Your task to perform on an android device: turn on priority inbox in the gmail app Image 0: 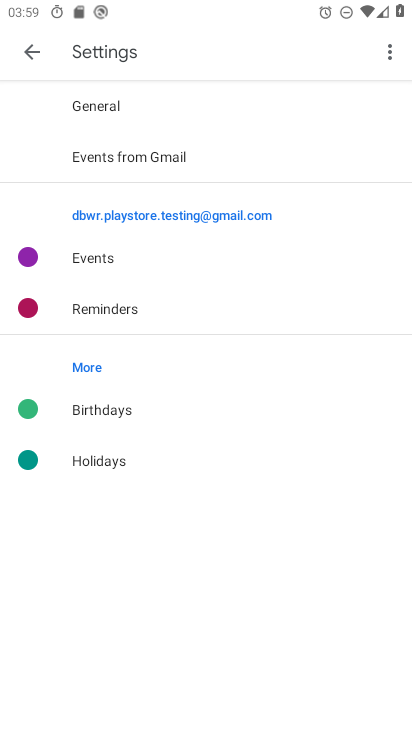
Step 0: press home button
Your task to perform on an android device: turn on priority inbox in the gmail app Image 1: 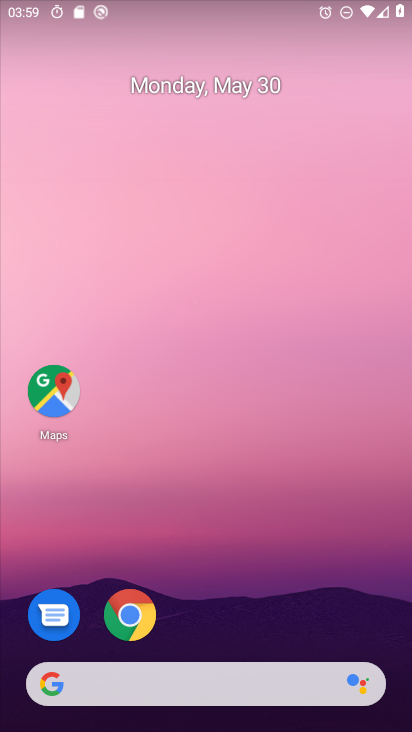
Step 1: drag from (236, 618) to (185, 128)
Your task to perform on an android device: turn on priority inbox in the gmail app Image 2: 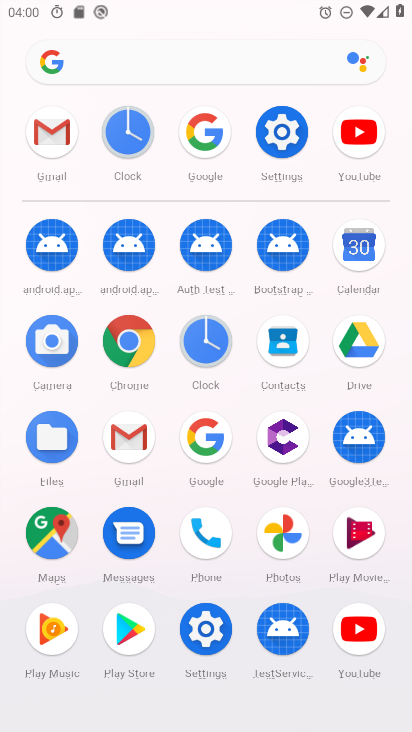
Step 2: click (51, 132)
Your task to perform on an android device: turn on priority inbox in the gmail app Image 3: 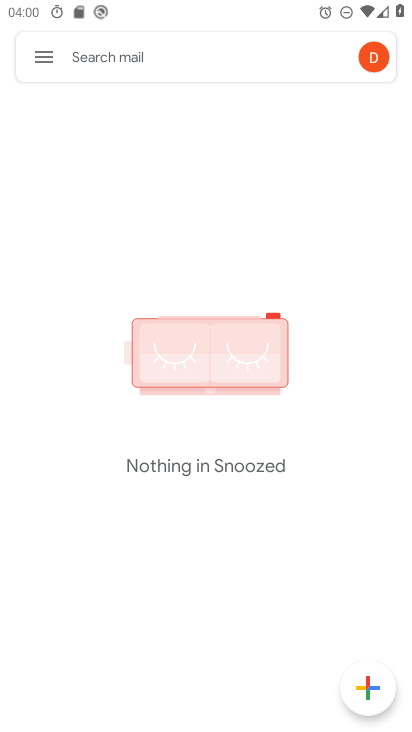
Step 3: click (44, 57)
Your task to perform on an android device: turn on priority inbox in the gmail app Image 4: 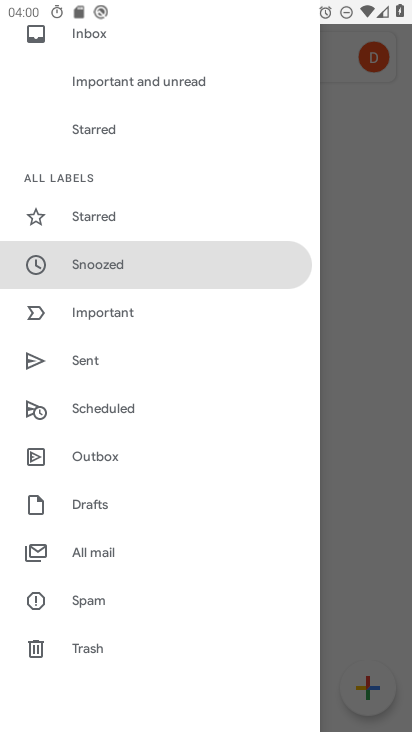
Step 4: drag from (122, 434) to (131, 298)
Your task to perform on an android device: turn on priority inbox in the gmail app Image 5: 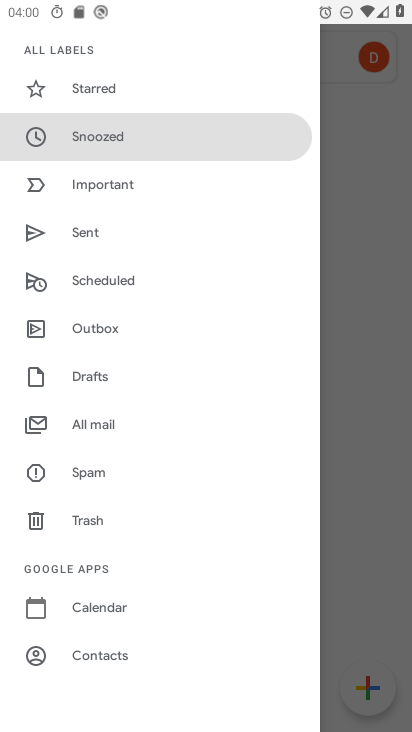
Step 5: drag from (103, 543) to (84, 360)
Your task to perform on an android device: turn on priority inbox in the gmail app Image 6: 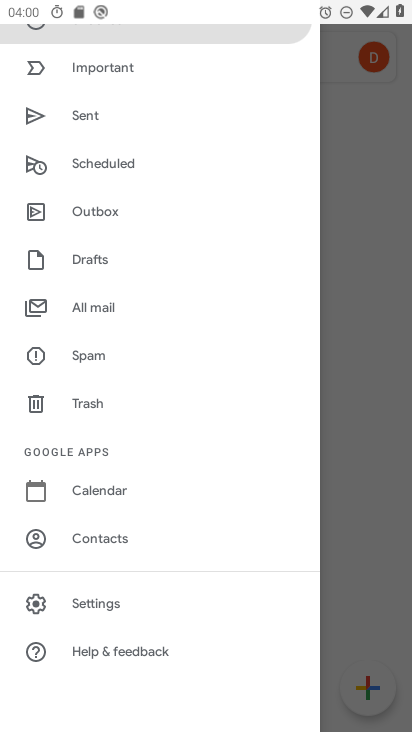
Step 6: drag from (123, 514) to (107, 385)
Your task to perform on an android device: turn on priority inbox in the gmail app Image 7: 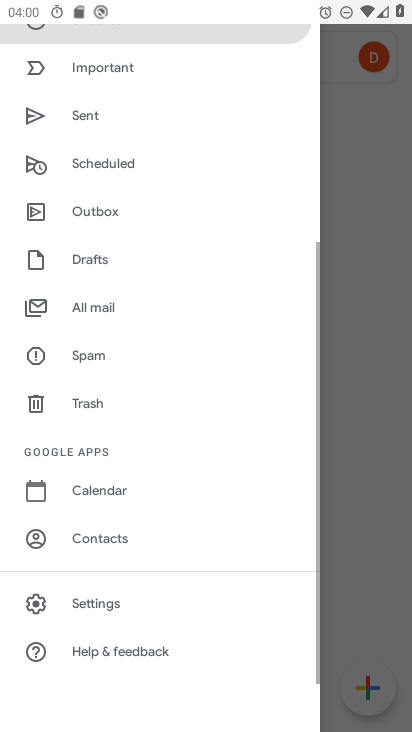
Step 7: click (99, 602)
Your task to perform on an android device: turn on priority inbox in the gmail app Image 8: 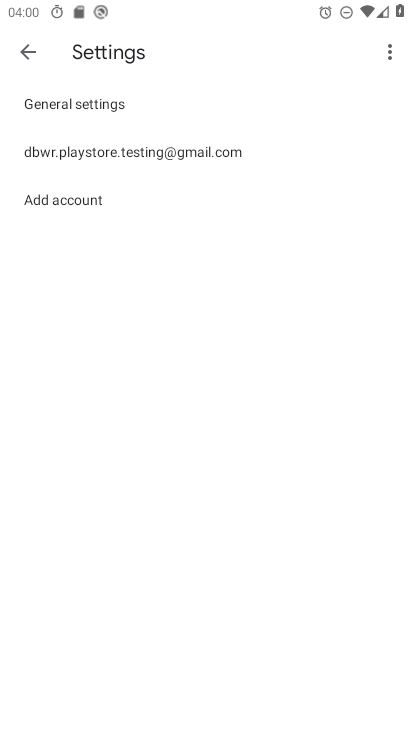
Step 8: click (126, 149)
Your task to perform on an android device: turn on priority inbox in the gmail app Image 9: 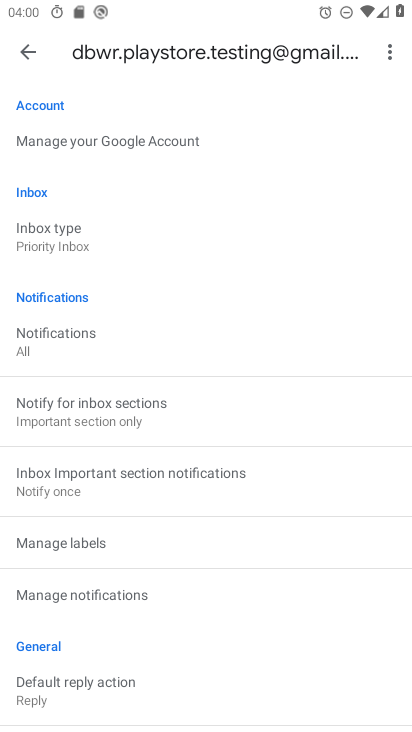
Step 9: task complete